Your task to perform on an android device: find photos in the google photos app Image 0: 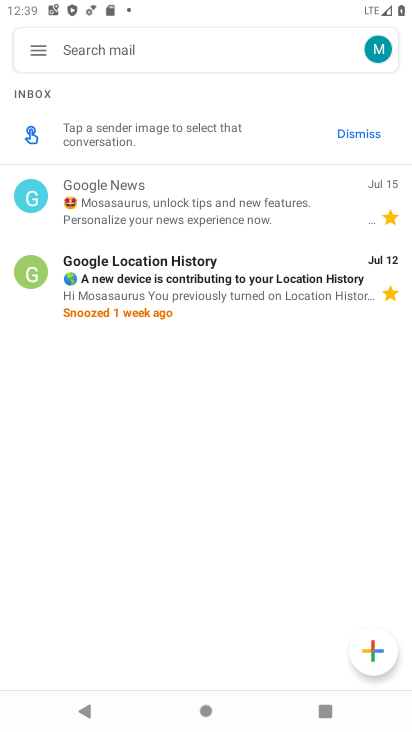
Step 0: press home button
Your task to perform on an android device: find photos in the google photos app Image 1: 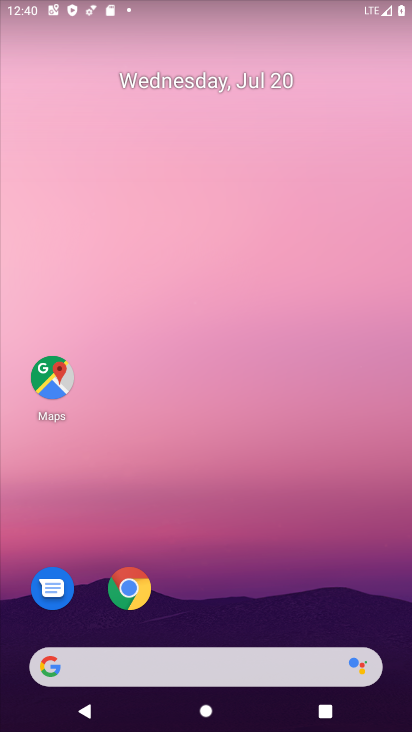
Step 1: drag from (367, 657) to (218, 155)
Your task to perform on an android device: find photos in the google photos app Image 2: 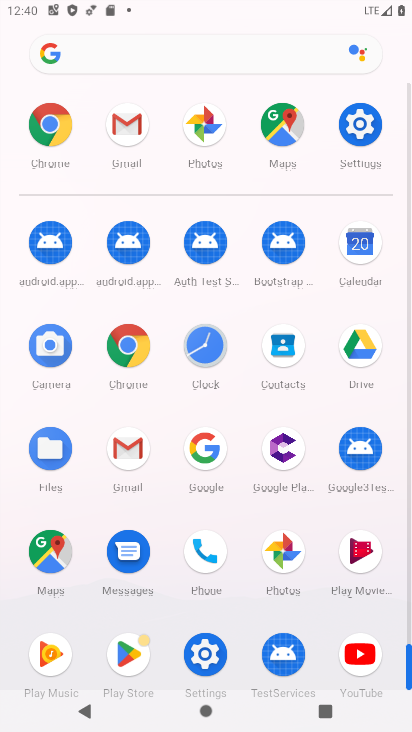
Step 2: click (264, 552)
Your task to perform on an android device: find photos in the google photos app Image 3: 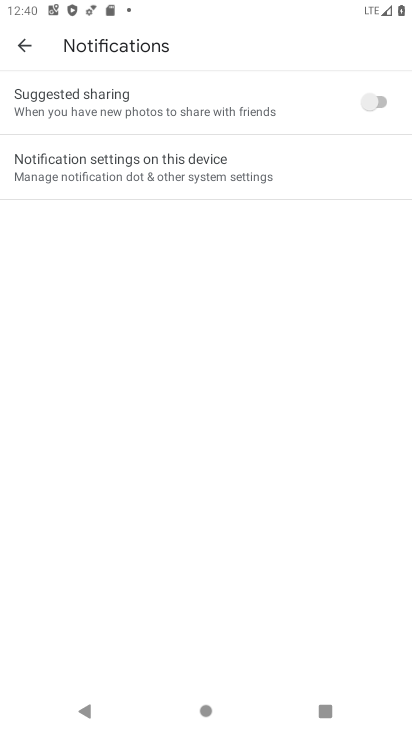
Step 3: click (24, 50)
Your task to perform on an android device: find photos in the google photos app Image 4: 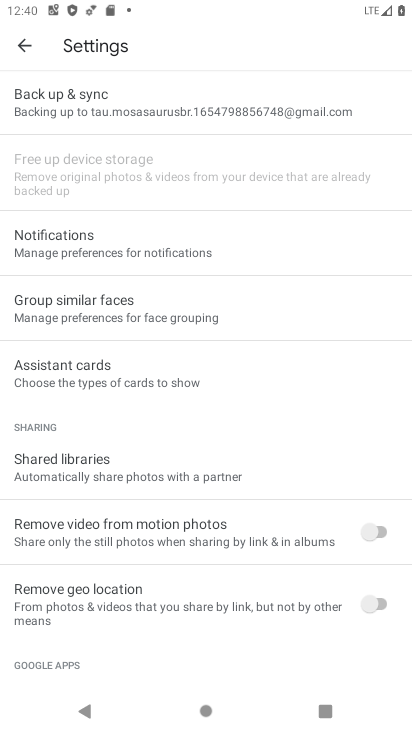
Step 4: click (29, 49)
Your task to perform on an android device: find photos in the google photos app Image 5: 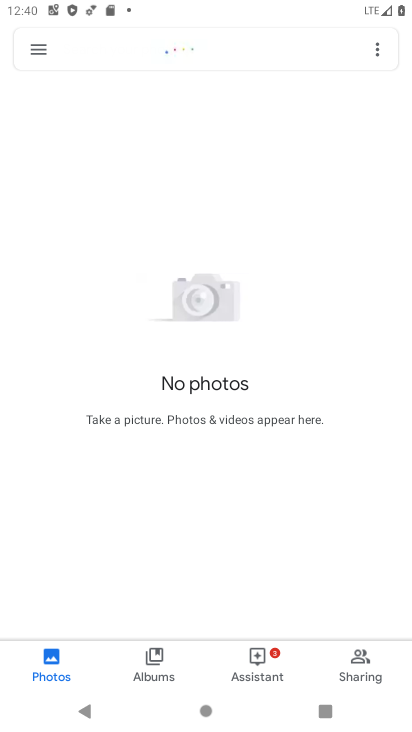
Step 5: click (44, 666)
Your task to perform on an android device: find photos in the google photos app Image 6: 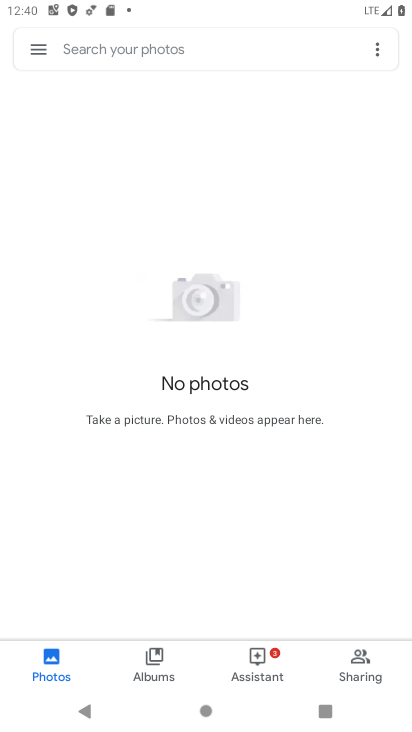
Step 6: task complete